Your task to perform on an android device: turn off smart reply in the gmail app Image 0: 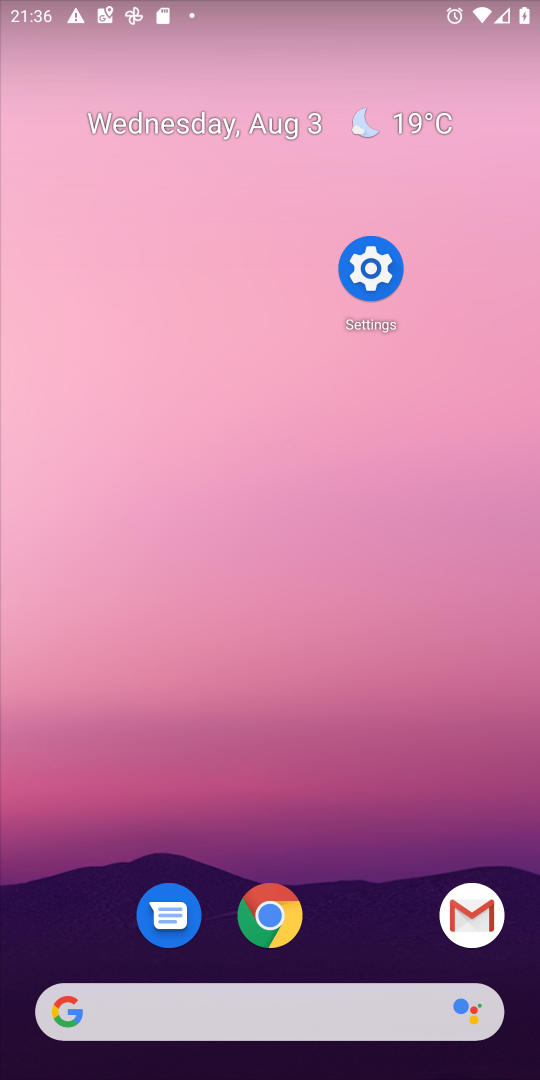
Step 0: press home button
Your task to perform on an android device: turn off smart reply in the gmail app Image 1: 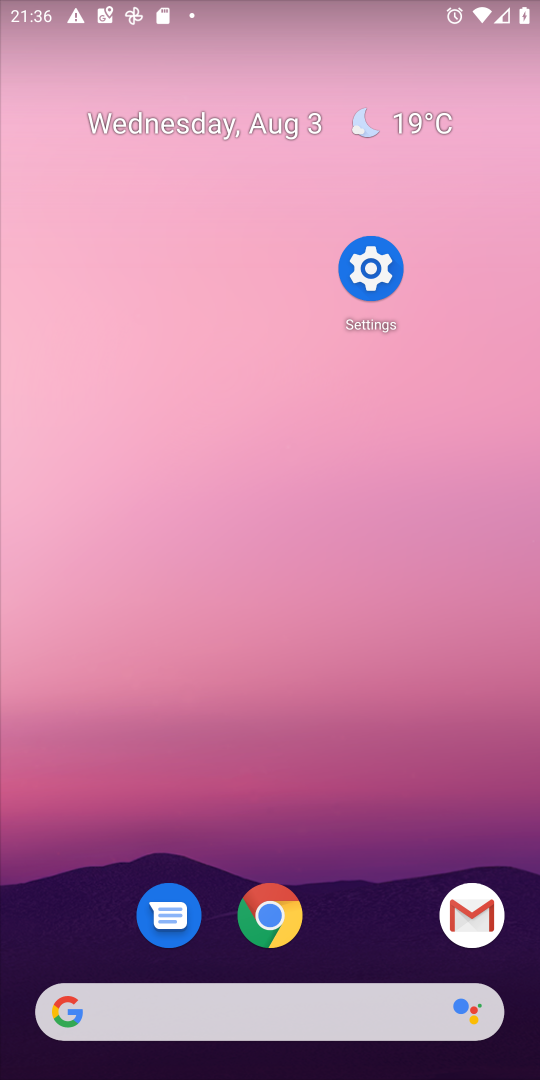
Step 1: drag from (322, 989) to (226, 241)
Your task to perform on an android device: turn off smart reply in the gmail app Image 2: 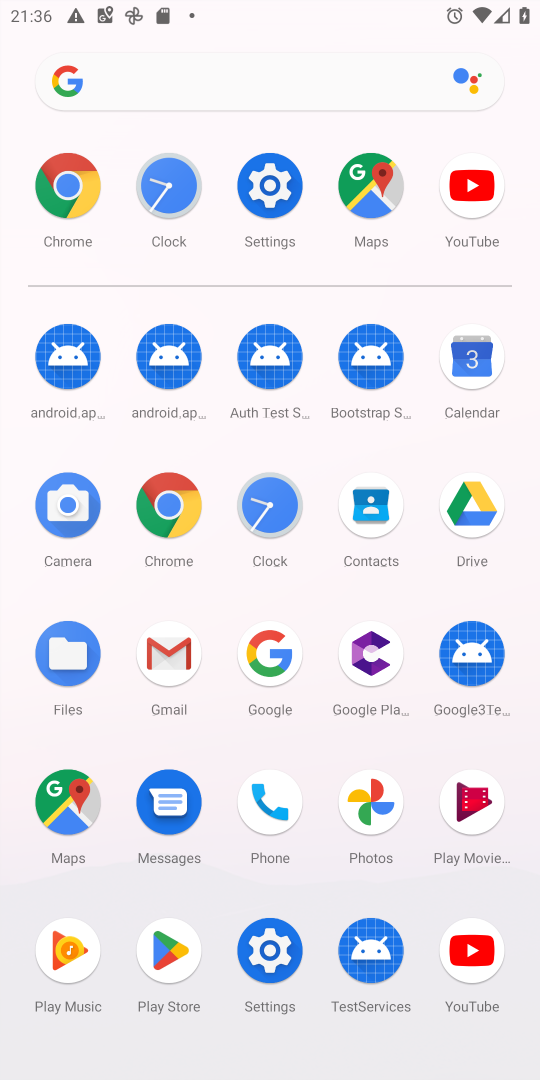
Step 2: click (187, 656)
Your task to perform on an android device: turn off smart reply in the gmail app Image 3: 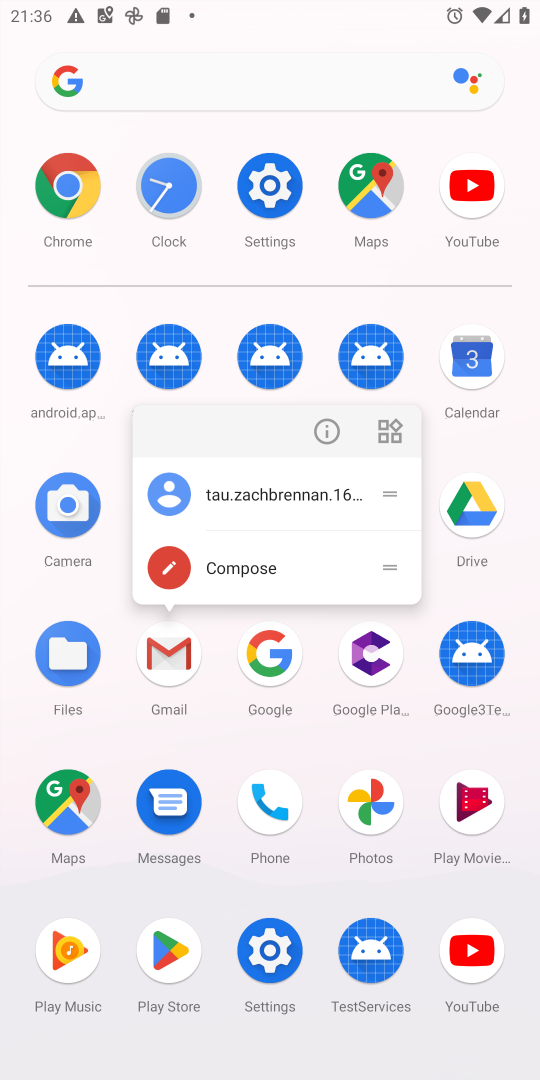
Step 3: click (166, 671)
Your task to perform on an android device: turn off smart reply in the gmail app Image 4: 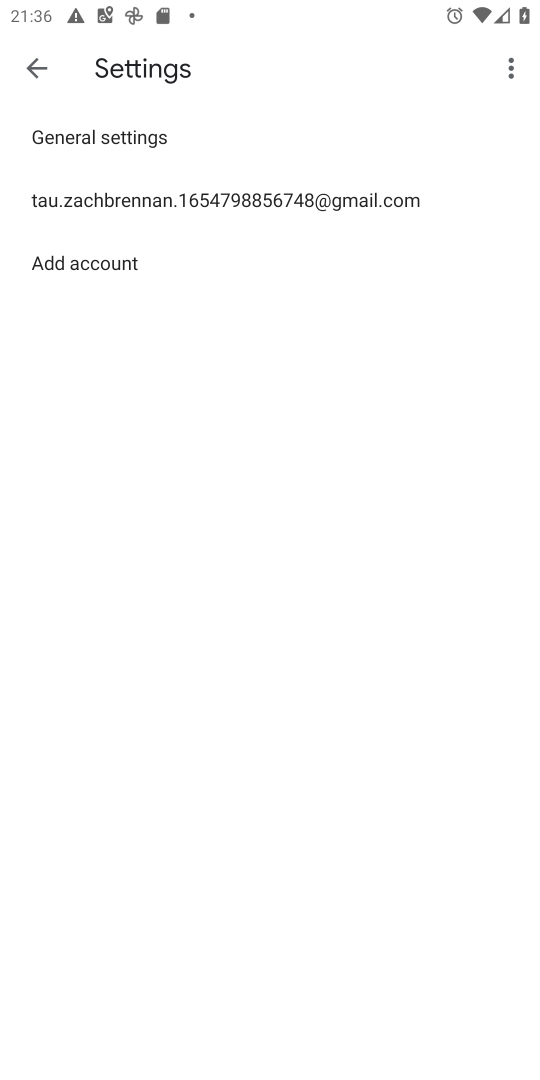
Step 4: click (146, 199)
Your task to perform on an android device: turn off smart reply in the gmail app Image 5: 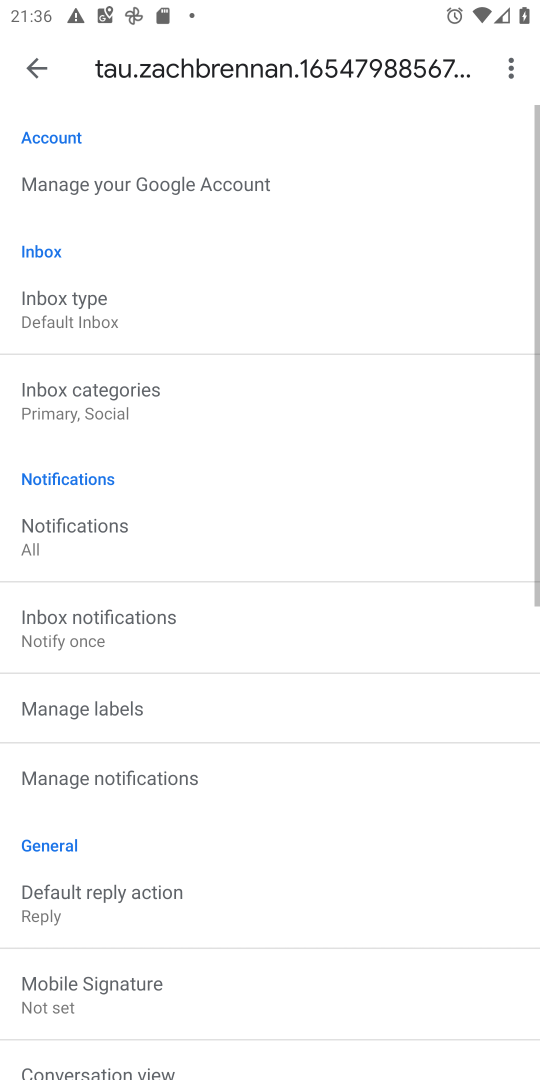
Step 5: drag from (181, 914) to (211, 258)
Your task to perform on an android device: turn off smart reply in the gmail app Image 6: 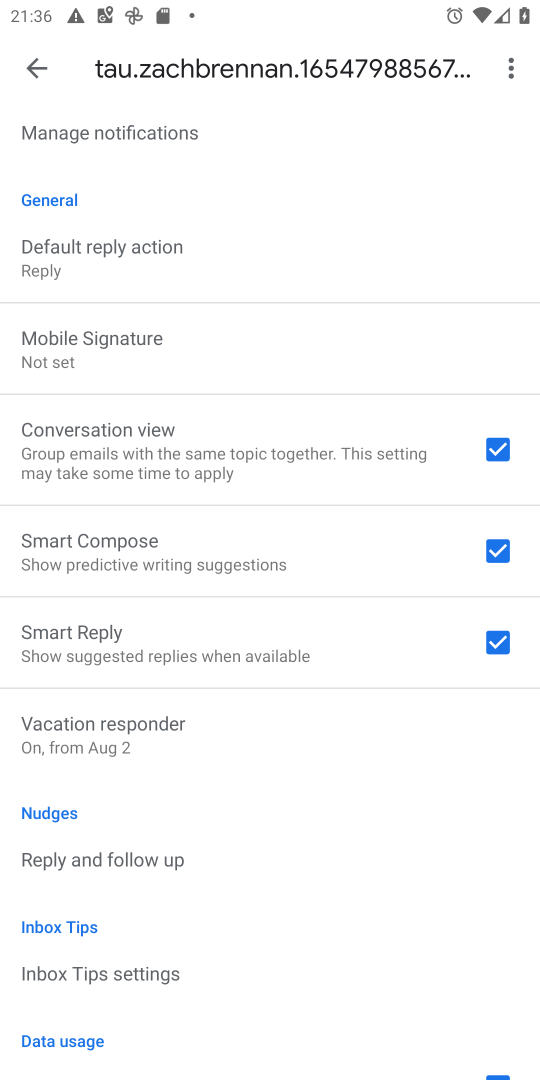
Step 6: click (359, 619)
Your task to perform on an android device: turn off smart reply in the gmail app Image 7: 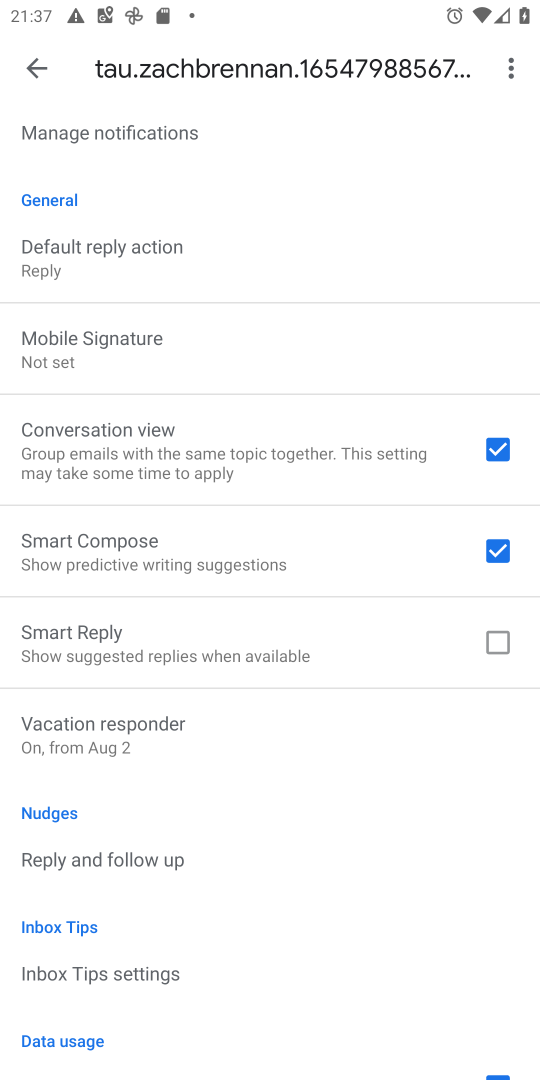
Step 7: task complete